Your task to perform on an android device: toggle location history Image 0: 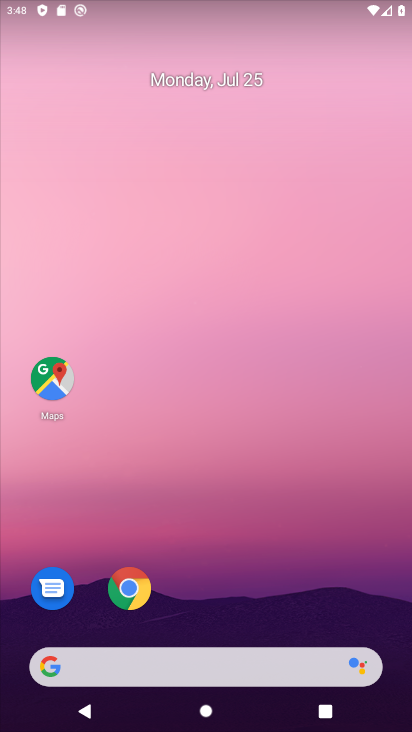
Step 0: drag from (230, 643) to (172, 119)
Your task to perform on an android device: toggle location history Image 1: 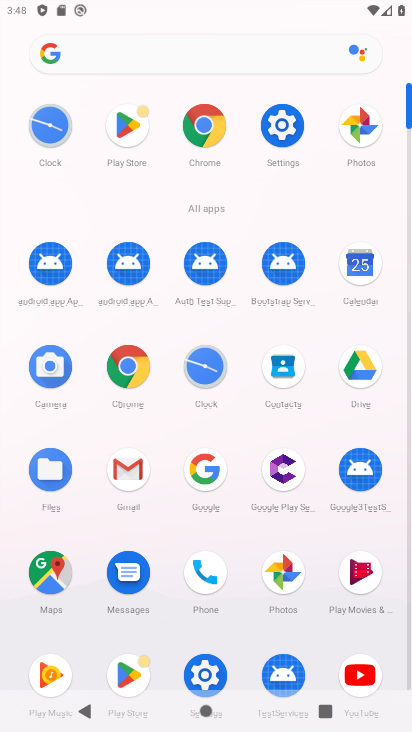
Step 1: click (274, 104)
Your task to perform on an android device: toggle location history Image 2: 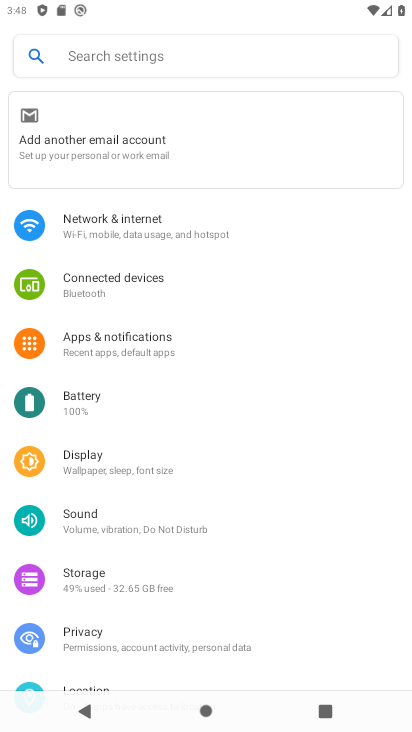
Step 2: click (154, 686)
Your task to perform on an android device: toggle location history Image 3: 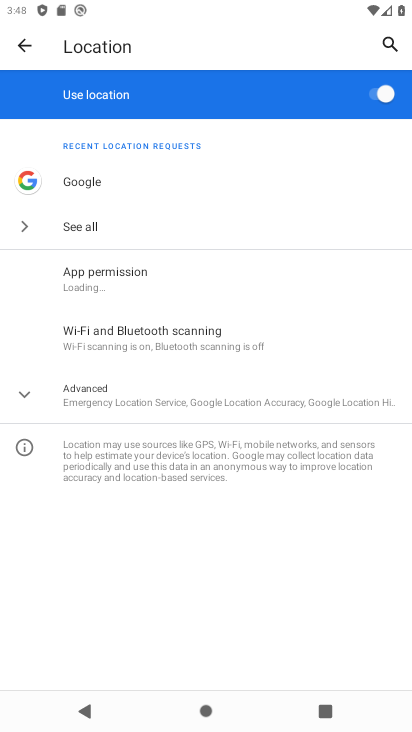
Step 3: click (123, 410)
Your task to perform on an android device: toggle location history Image 4: 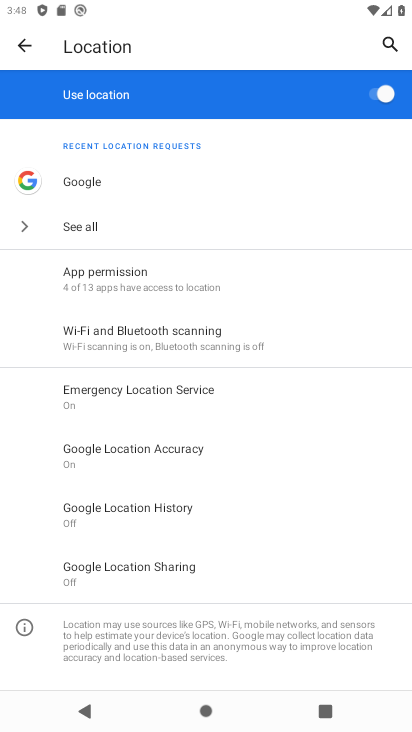
Step 4: click (127, 519)
Your task to perform on an android device: toggle location history Image 5: 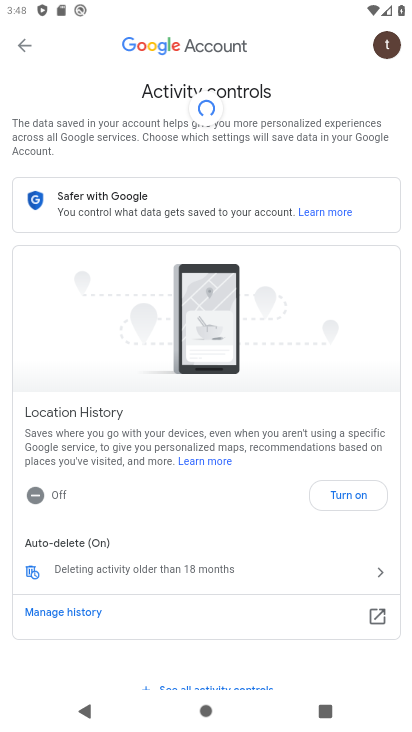
Step 5: click (353, 501)
Your task to perform on an android device: toggle location history Image 6: 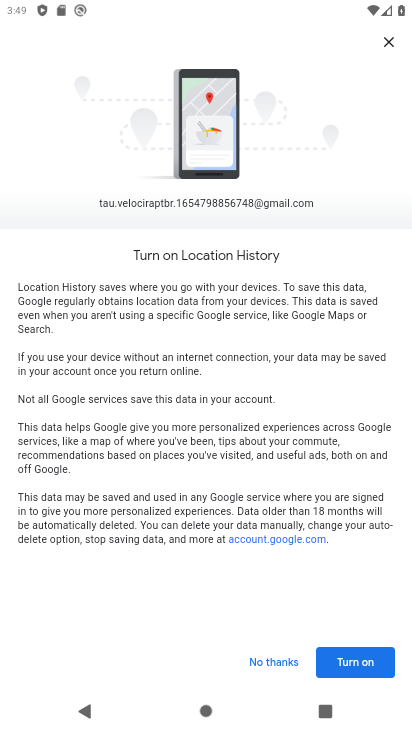
Step 6: click (338, 650)
Your task to perform on an android device: toggle location history Image 7: 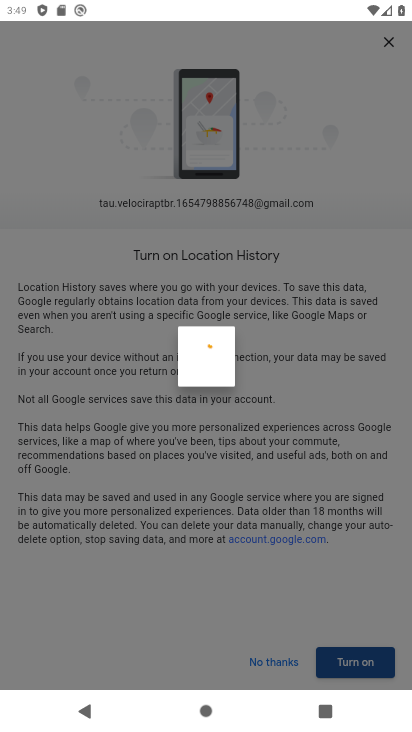
Step 7: click (335, 672)
Your task to perform on an android device: toggle location history Image 8: 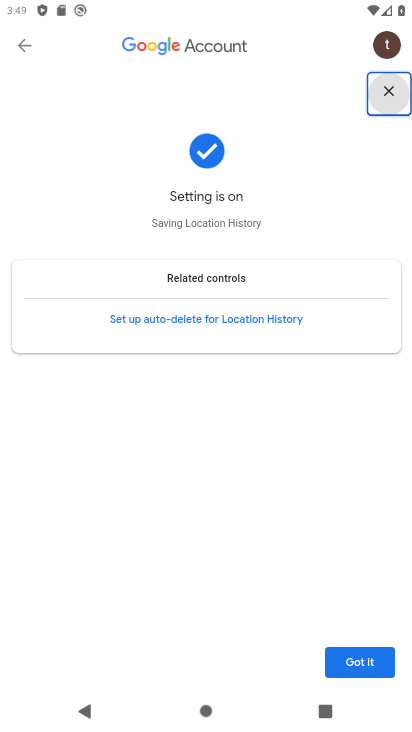
Step 8: click (331, 647)
Your task to perform on an android device: toggle location history Image 9: 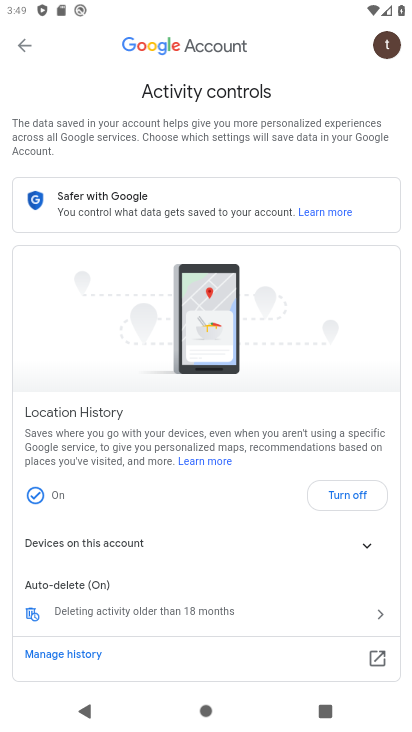
Step 9: task complete